Your task to perform on an android device: open app "DuckDuckGo Privacy Browser" Image 0: 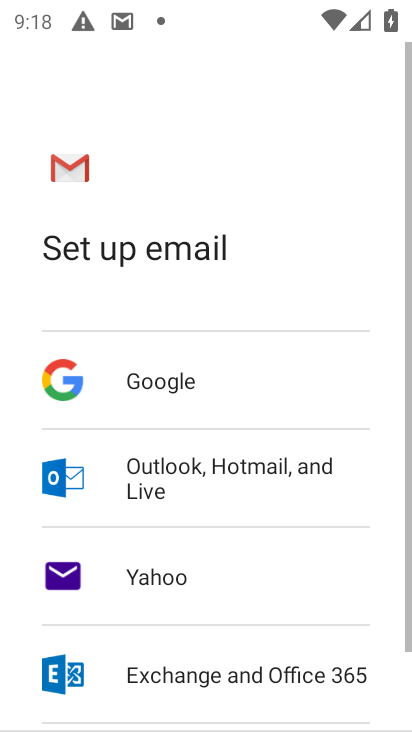
Step 0: press home button
Your task to perform on an android device: open app "DuckDuckGo Privacy Browser" Image 1: 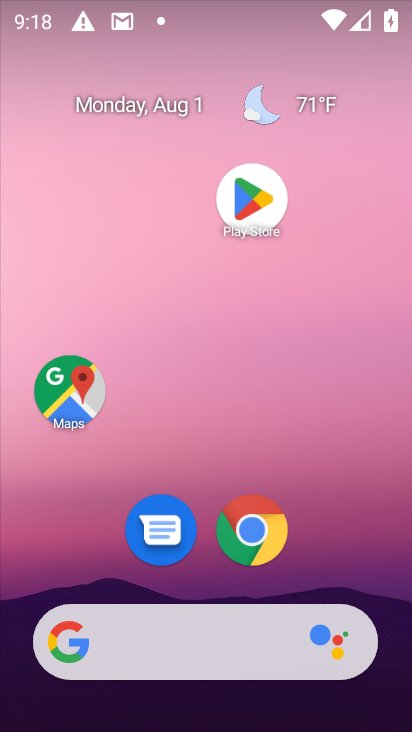
Step 1: click (246, 203)
Your task to perform on an android device: open app "DuckDuckGo Privacy Browser" Image 2: 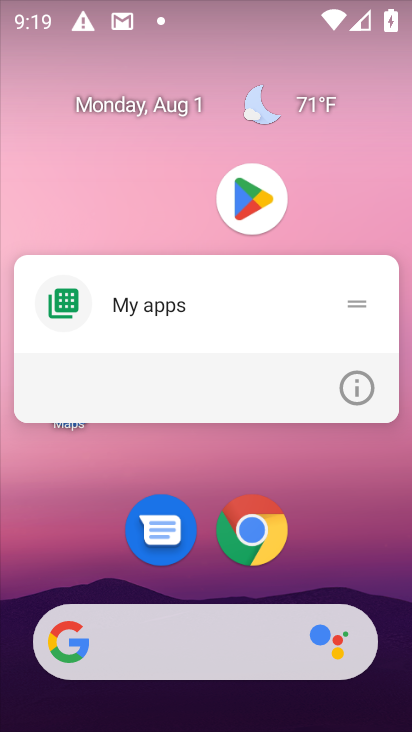
Step 2: click (246, 203)
Your task to perform on an android device: open app "DuckDuckGo Privacy Browser" Image 3: 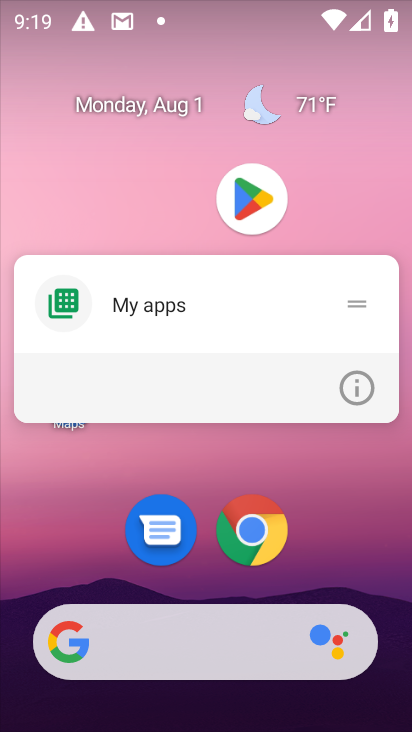
Step 3: click (212, 198)
Your task to perform on an android device: open app "DuckDuckGo Privacy Browser" Image 4: 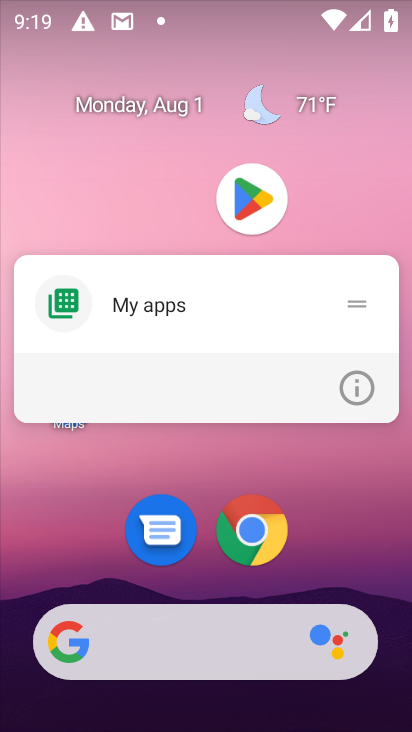
Step 4: click (288, 172)
Your task to perform on an android device: open app "DuckDuckGo Privacy Browser" Image 5: 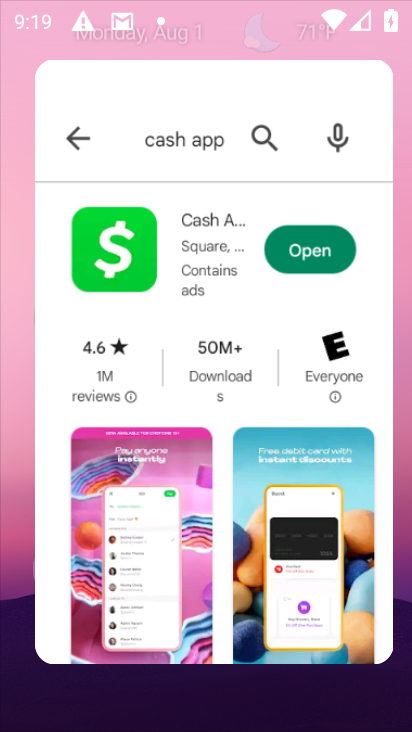
Step 5: click (288, 206)
Your task to perform on an android device: open app "DuckDuckGo Privacy Browser" Image 6: 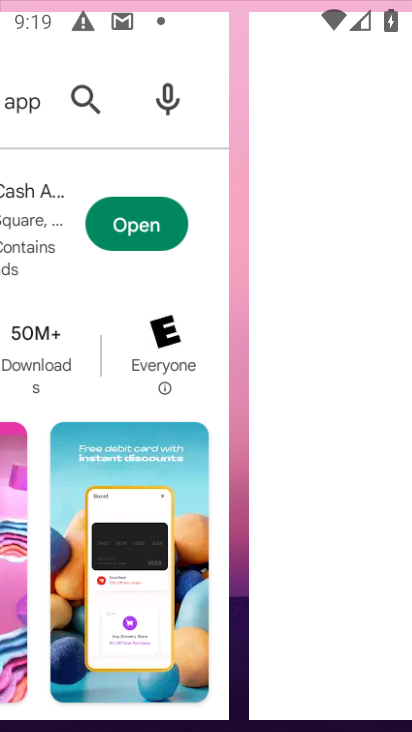
Step 6: click (234, 85)
Your task to perform on an android device: open app "DuckDuckGo Privacy Browser" Image 7: 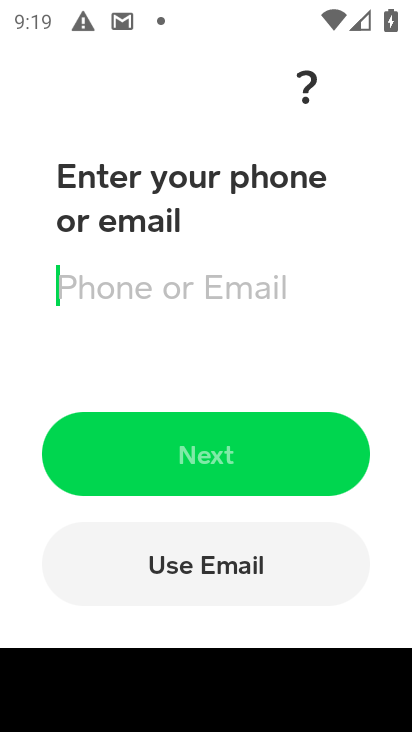
Step 7: press back button
Your task to perform on an android device: open app "DuckDuckGo Privacy Browser" Image 8: 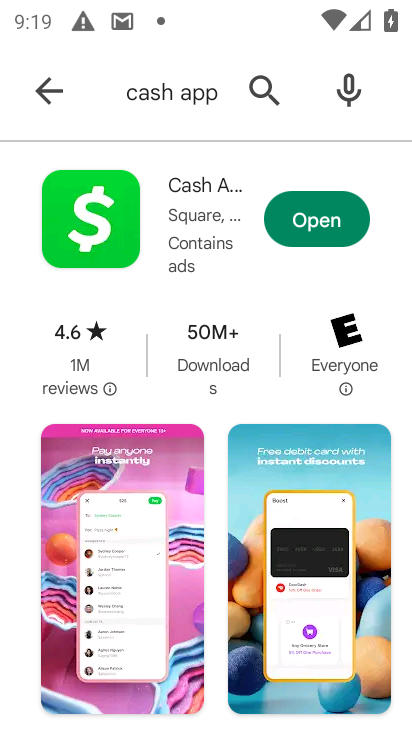
Step 8: click (247, 100)
Your task to perform on an android device: open app "DuckDuckGo Privacy Browser" Image 9: 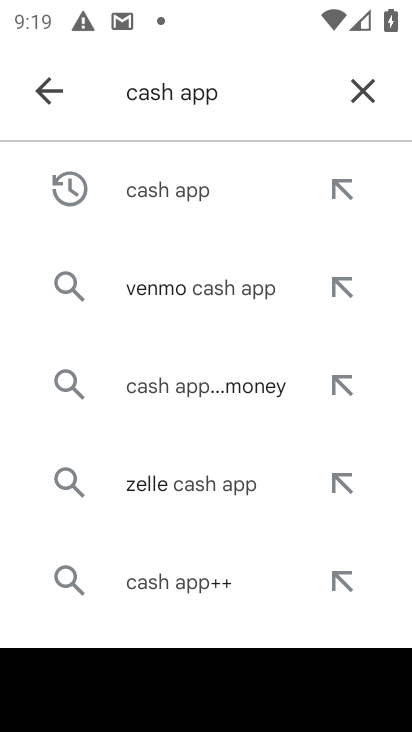
Step 9: click (356, 90)
Your task to perform on an android device: open app "DuckDuckGo Privacy Browser" Image 10: 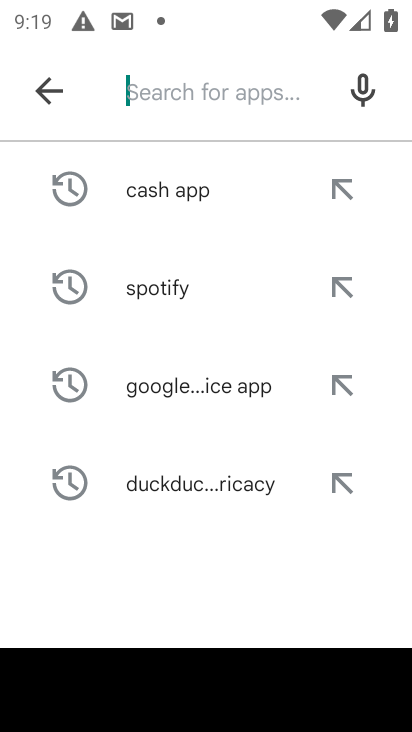
Step 10: click (224, 486)
Your task to perform on an android device: open app "DuckDuckGo Privacy Browser" Image 11: 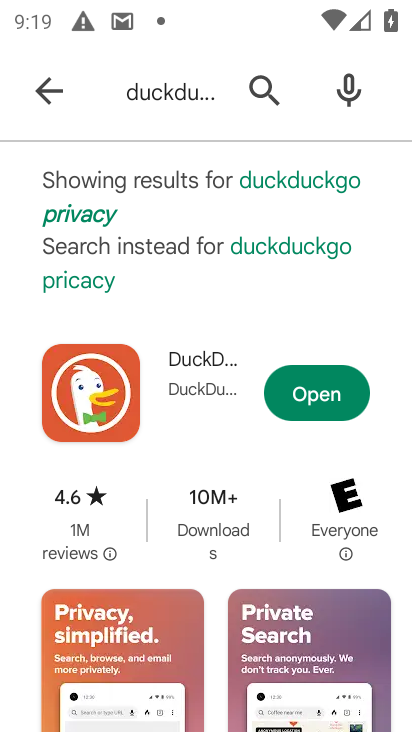
Step 11: click (308, 398)
Your task to perform on an android device: open app "DuckDuckGo Privacy Browser" Image 12: 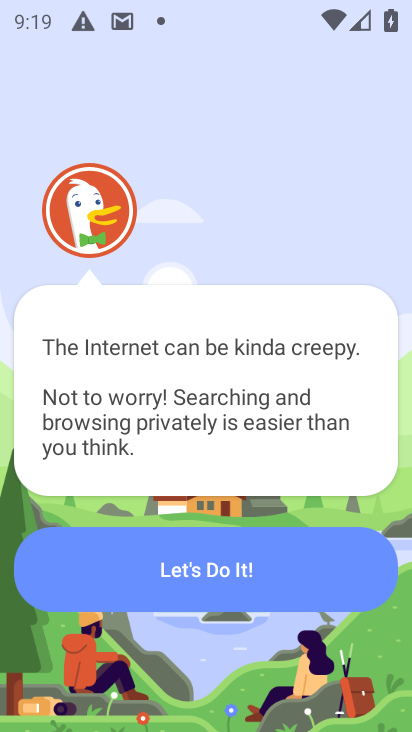
Step 12: task complete